Your task to perform on an android device: Open wifi settings Image 0: 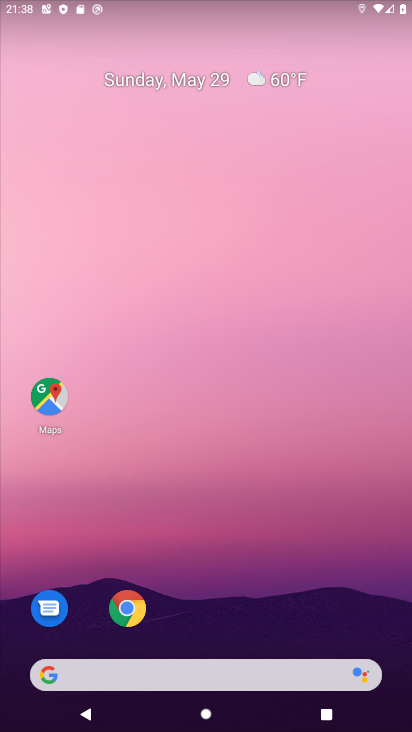
Step 0: drag from (375, 624) to (363, 238)
Your task to perform on an android device: Open wifi settings Image 1: 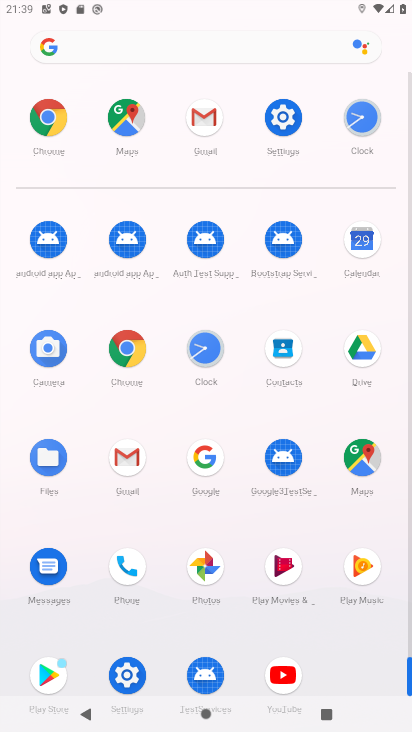
Step 1: click (283, 132)
Your task to perform on an android device: Open wifi settings Image 2: 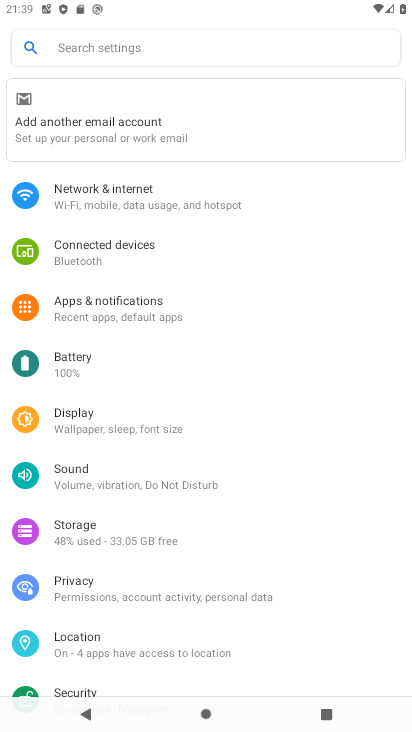
Step 2: click (147, 199)
Your task to perform on an android device: Open wifi settings Image 3: 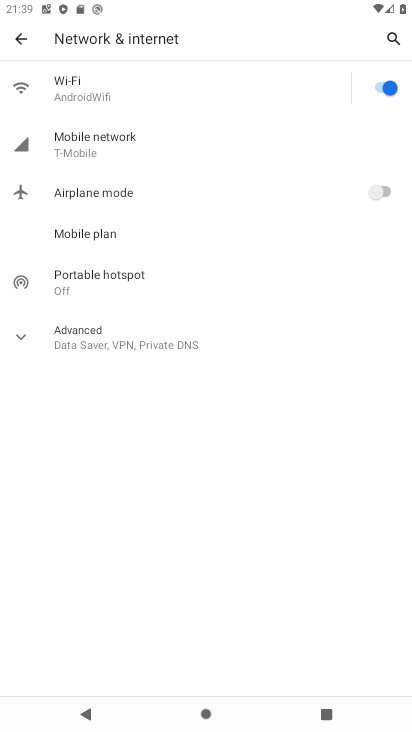
Step 3: task complete